Your task to perform on an android device: Open Yahoo.com Image 0: 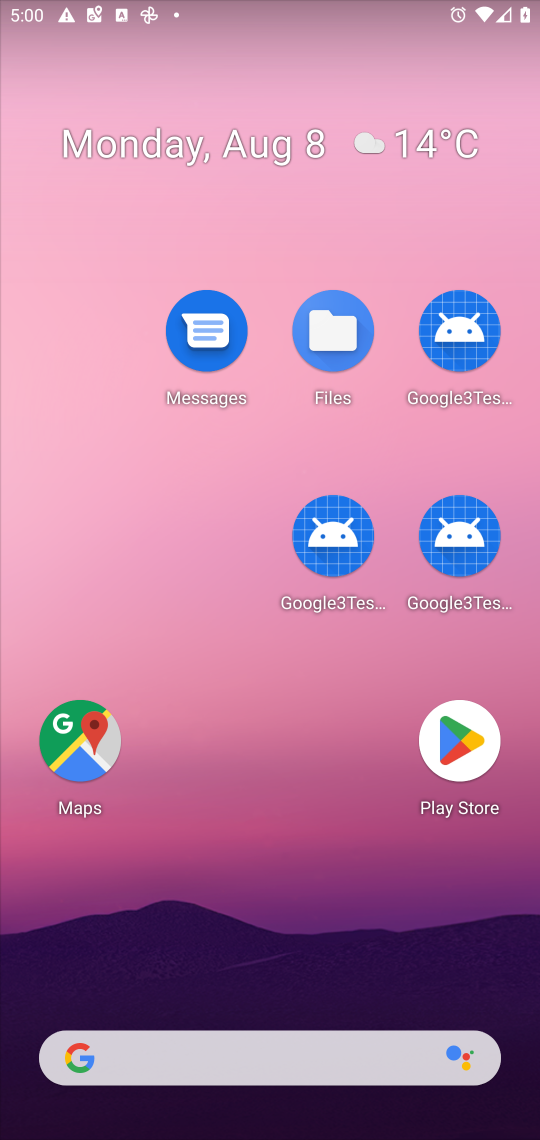
Step 0: drag from (226, 1050) to (342, 17)
Your task to perform on an android device: Open Yahoo.com Image 1: 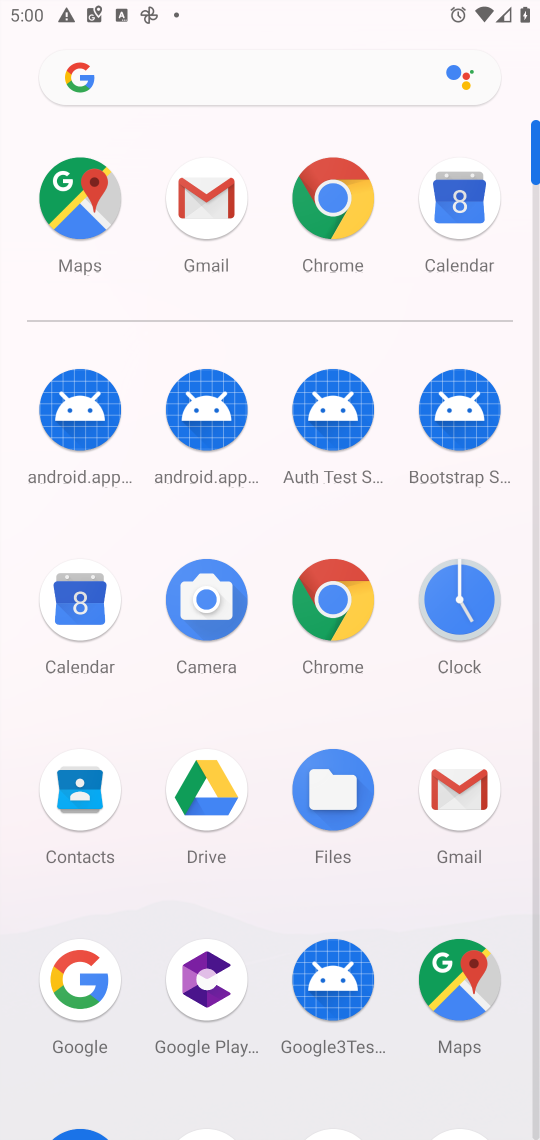
Step 1: click (350, 572)
Your task to perform on an android device: Open Yahoo.com Image 2: 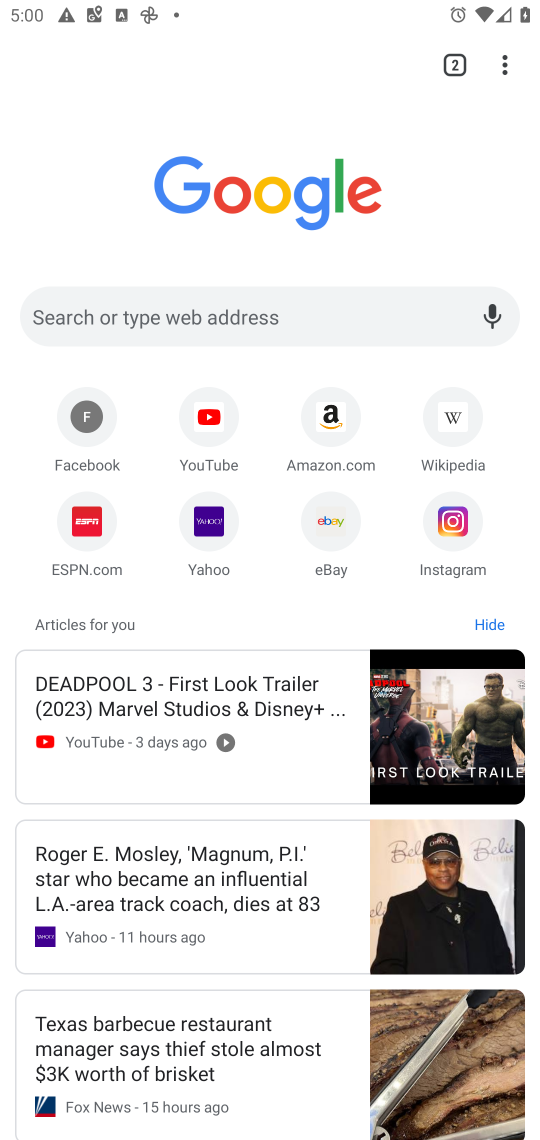
Step 2: click (206, 531)
Your task to perform on an android device: Open Yahoo.com Image 3: 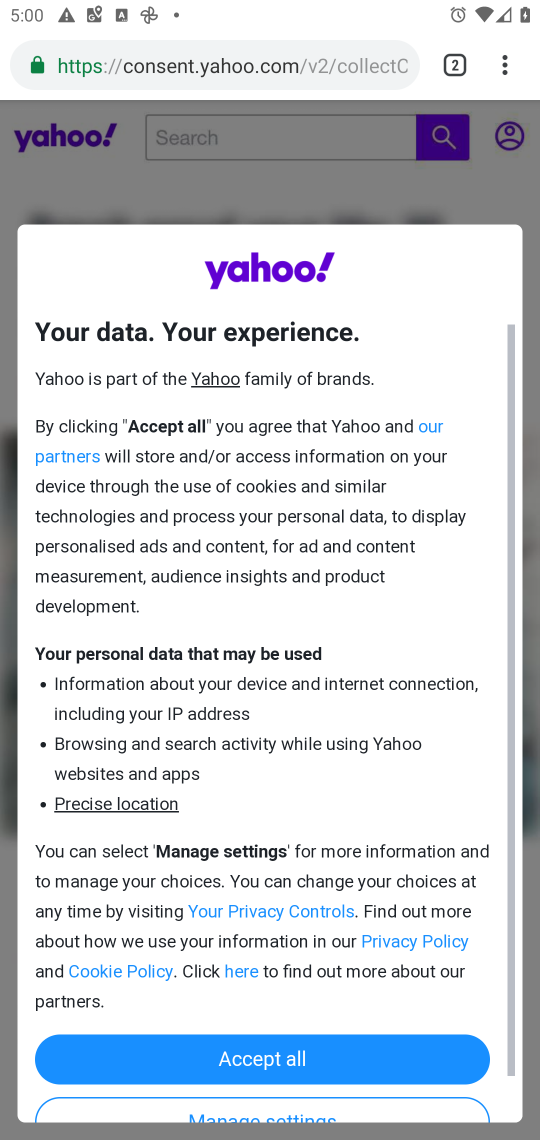
Step 3: task complete